Your task to perform on an android device: Go to network settings Image 0: 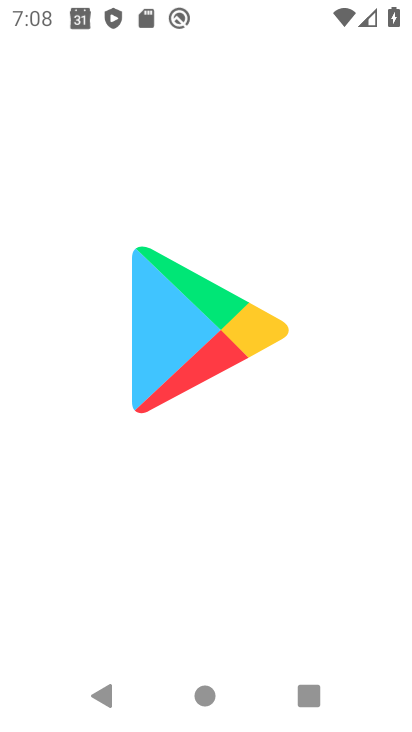
Step 0: press home button
Your task to perform on an android device: Go to network settings Image 1: 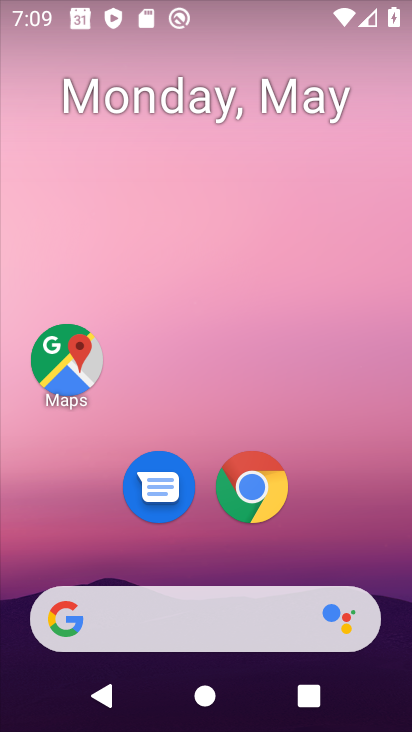
Step 1: drag from (203, 524) to (202, 354)
Your task to perform on an android device: Go to network settings Image 2: 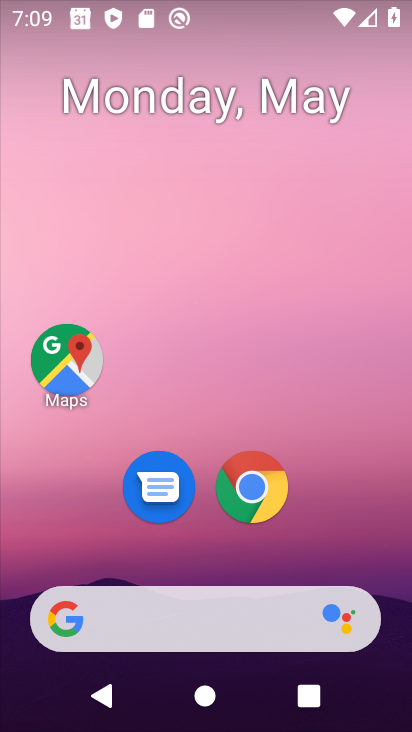
Step 2: drag from (228, 652) to (229, 103)
Your task to perform on an android device: Go to network settings Image 3: 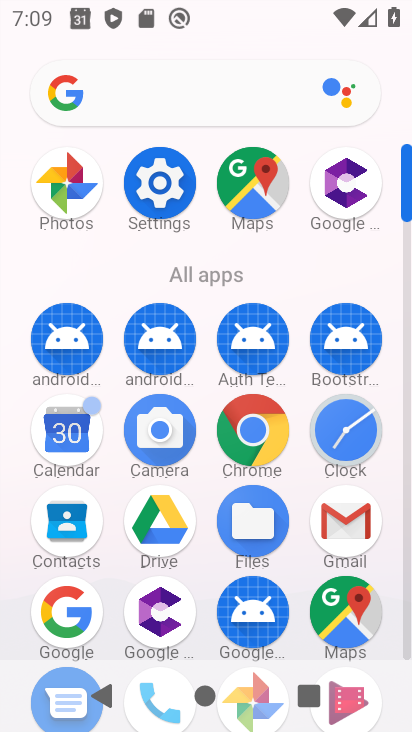
Step 3: click (163, 176)
Your task to perform on an android device: Go to network settings Image 4: 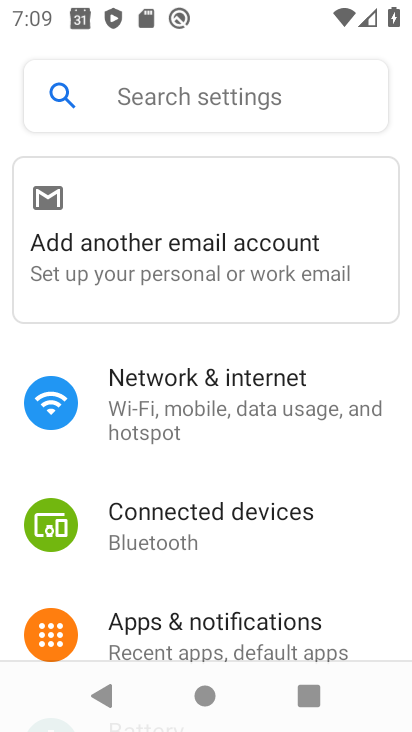
Step 4: click (164, 414)
Your task to perform on an android device: Go to network settings Image 5: 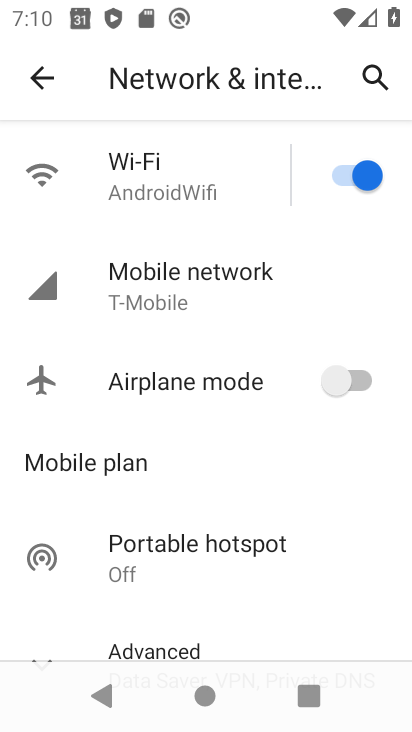
Step 5: task complete